Your task to perform on an android device: check data usage Image 0: 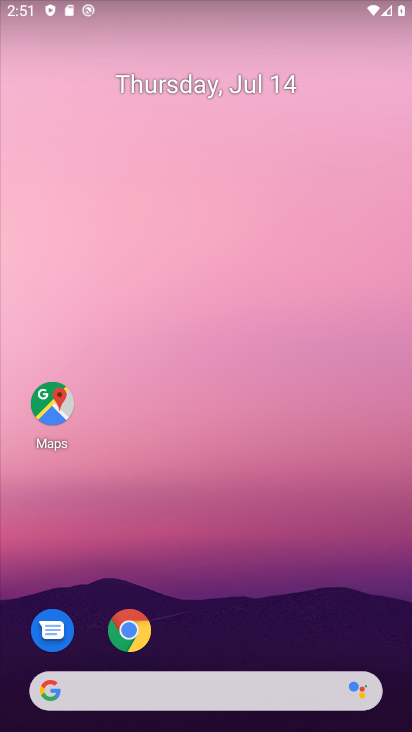
Step 0: drag from (194, 652) to (131, 111)
Your task to perform on an android device: check data usage Image 1: 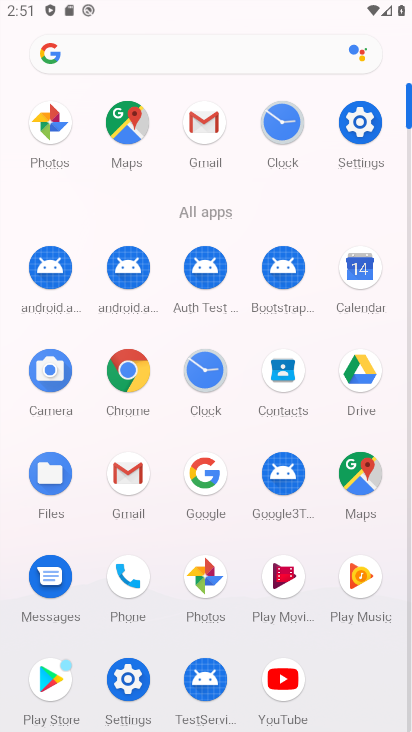
Step 1: click (366, 109)
Your task to perform on an android device: check data usage Image 2: 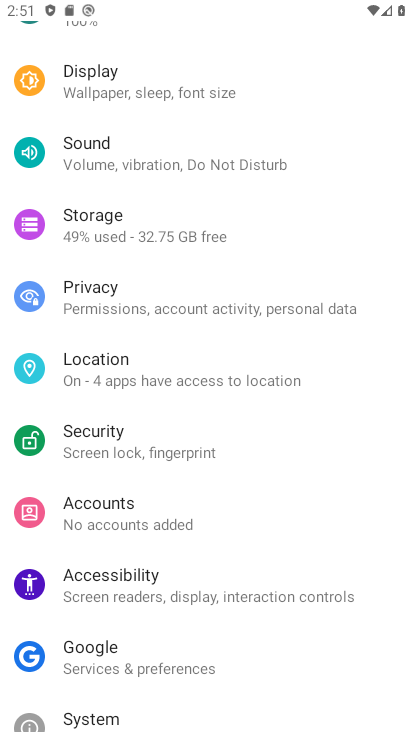
Step 2: drag from (284, 178) to (293, 442)
Your task to perform on an android device: check data usage Image 3: 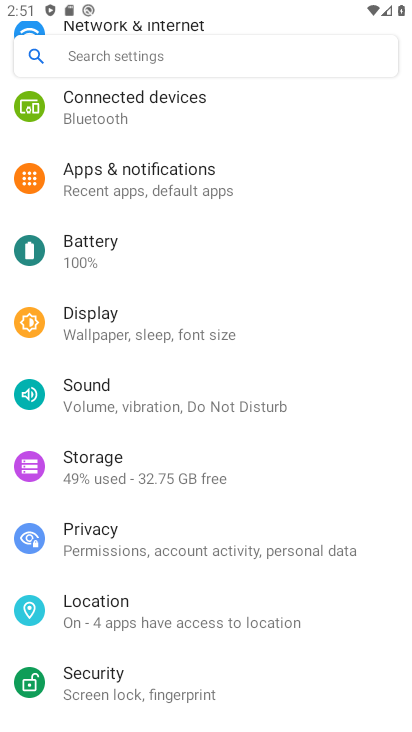
Step 3: drag from (218, 133) to (220, 344)
Your task to perform on an android device: check data usage Image 4: 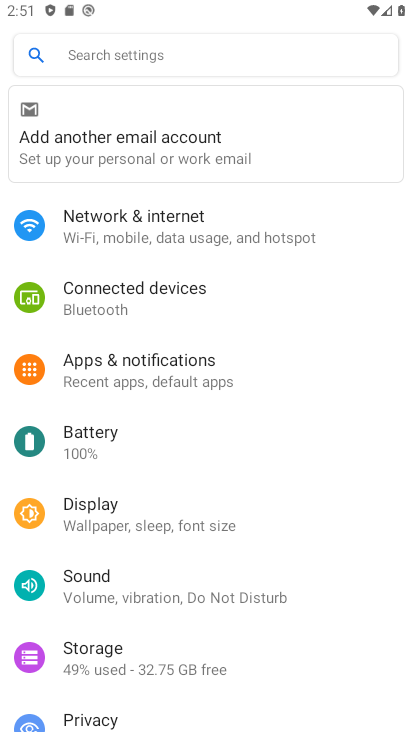
Step 4: click (188, 230)
Your task to perform on an android device: check data usage Image 5: 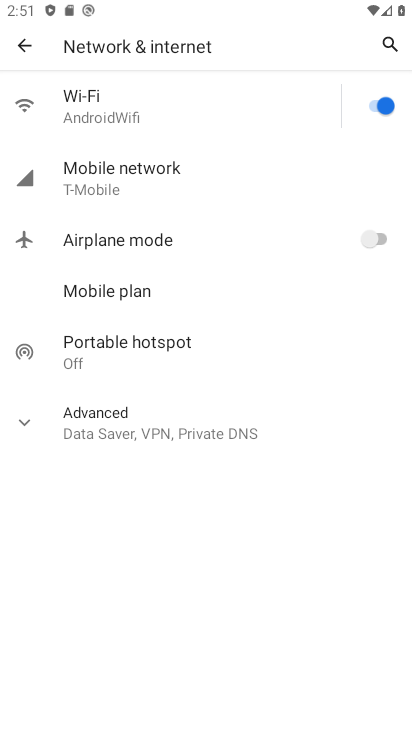
Step 5: click (161, 179)
Your task to perform on an android device: check data usage Image 6: 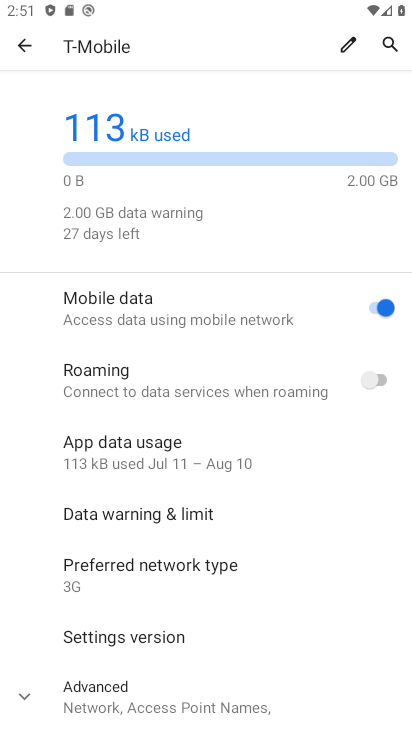
Step 6: task complete